Your task to perform on an android device: Toggle the flashlight Image 0: 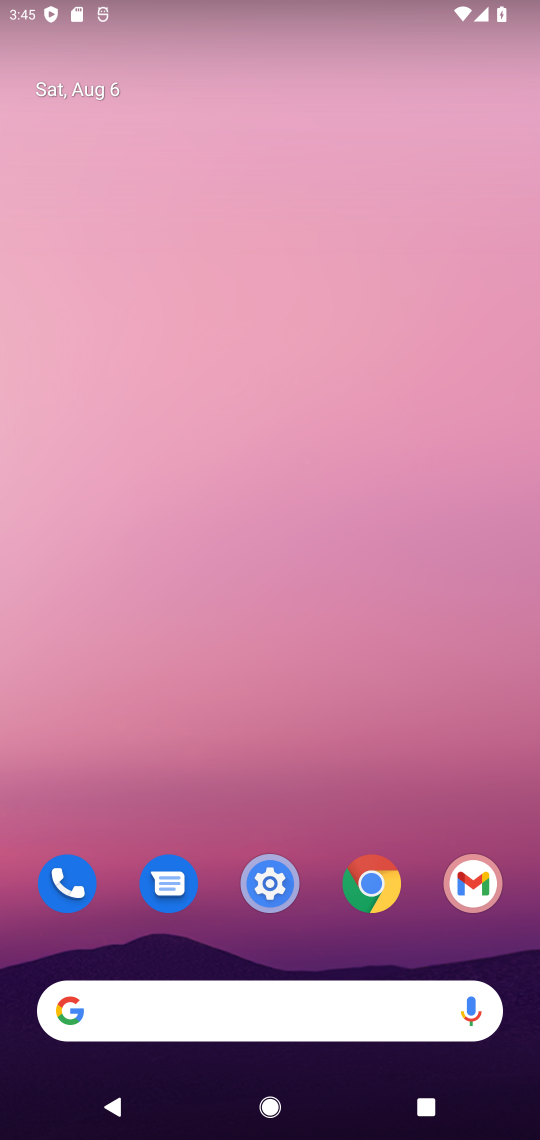
Step 0: drag from (216, 974) to (303, 40)
Your task to perform on an android device: Toggle the flashlight Image 1: 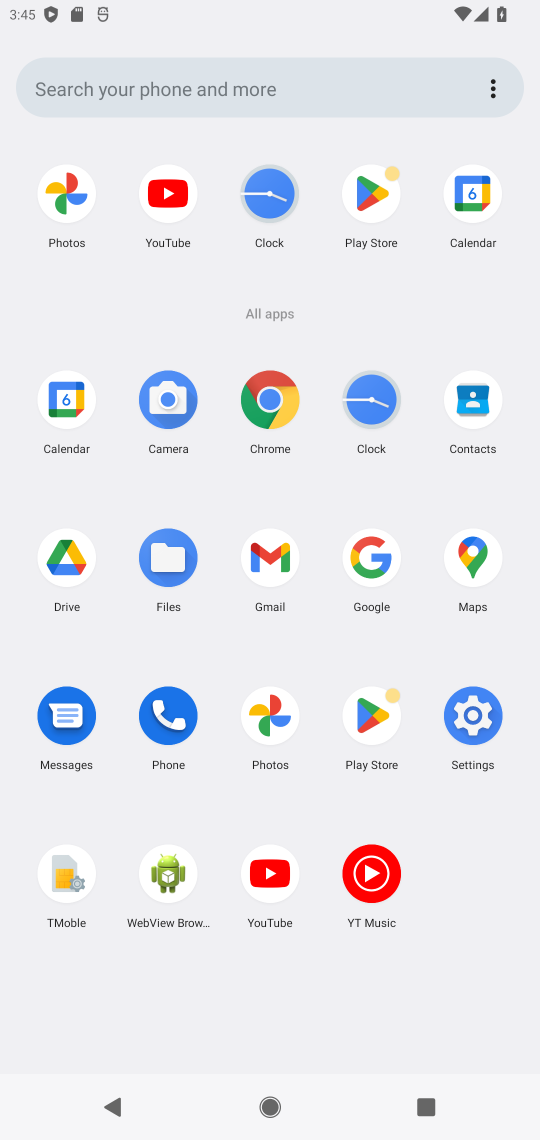
Step 1: drag from (389, 323) to (383, 685)
Your task to perform on an android device: Toggle the flashlight Image 2: 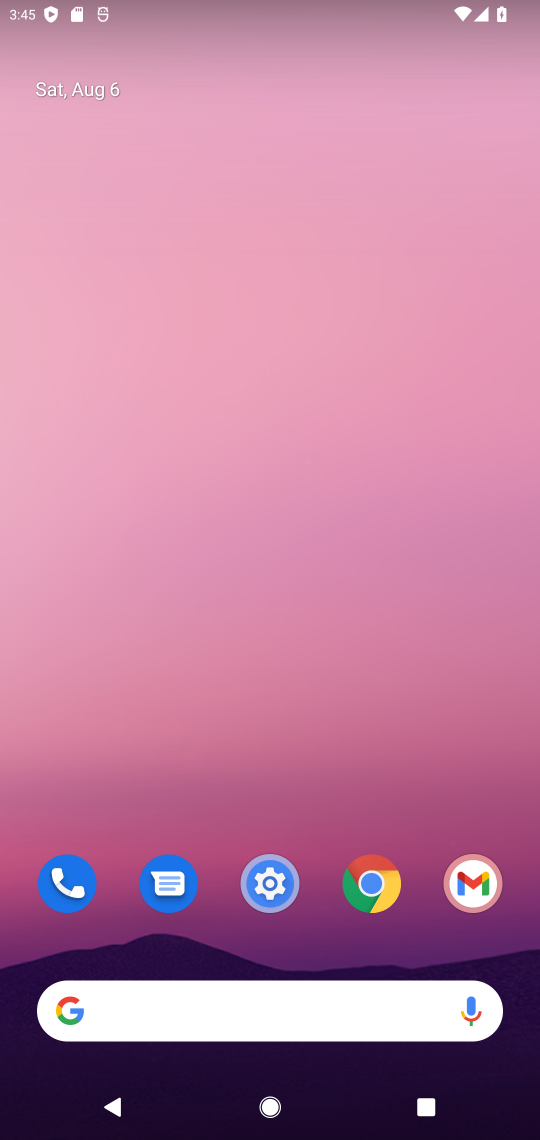
Step 2: drag from (354, 12) to (306, 734)
Your task to perform on an android device: Toggle the flashlight Image 3: 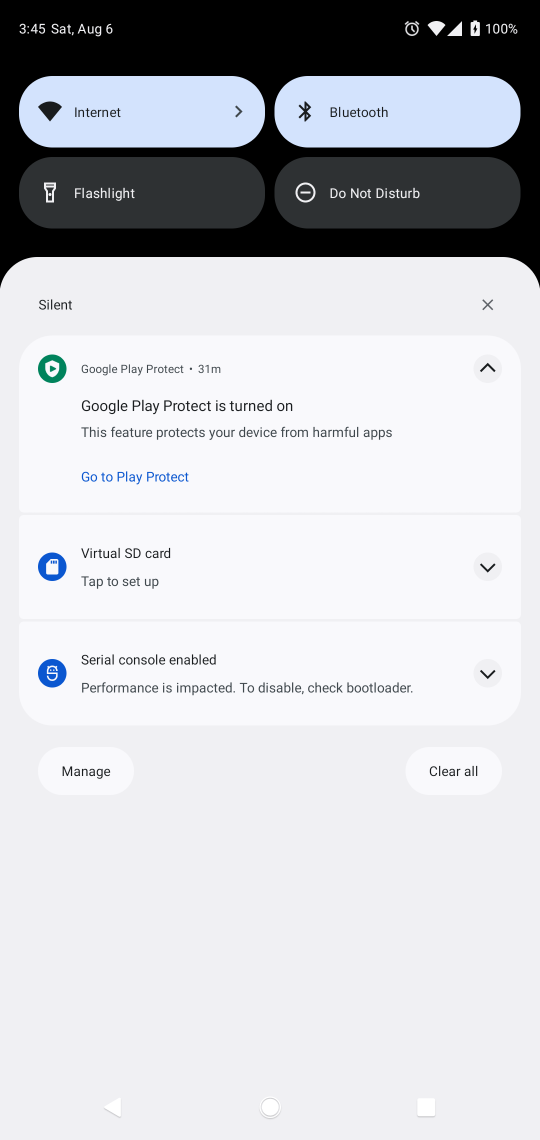
Step 3: drag from (259, 220) to (535, 340)
Your task to perform on an android device: Toggle the flashlight Image 4: 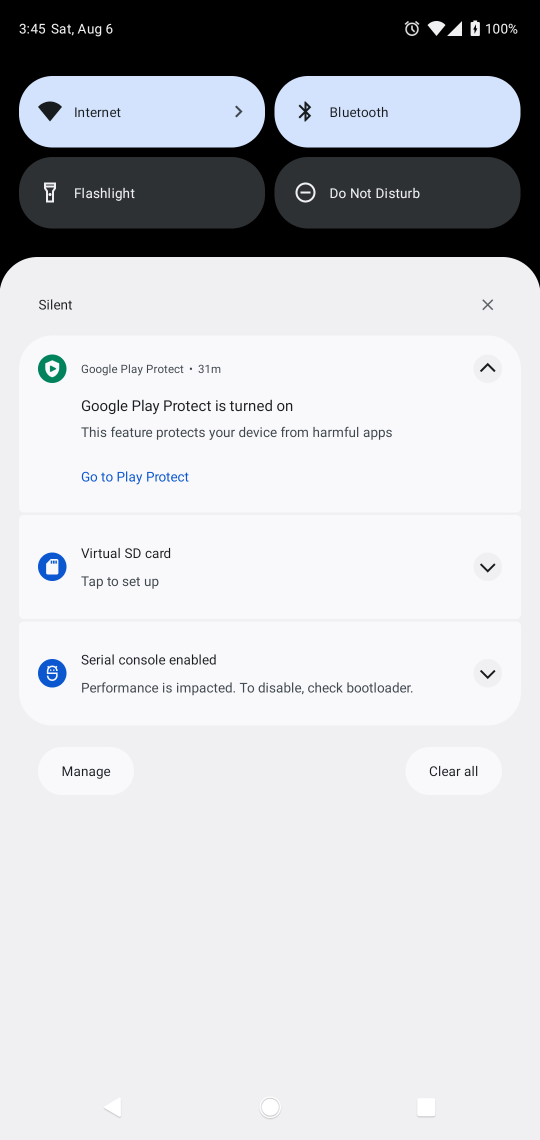
Step 4: drag from (268, 229) to (186, 1055)
Your task to perform on an android device: Toggle the flashlight Image 5: 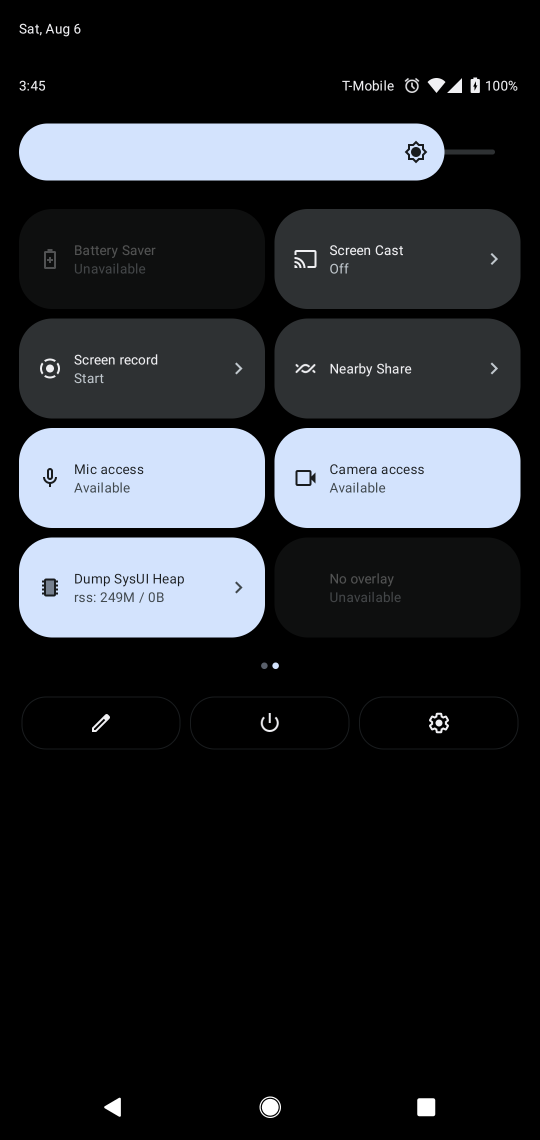
Step 5: drag from (144, 488) to (539, 323)
Your task to perform on an android device: Toggle the flashlight Image 6: 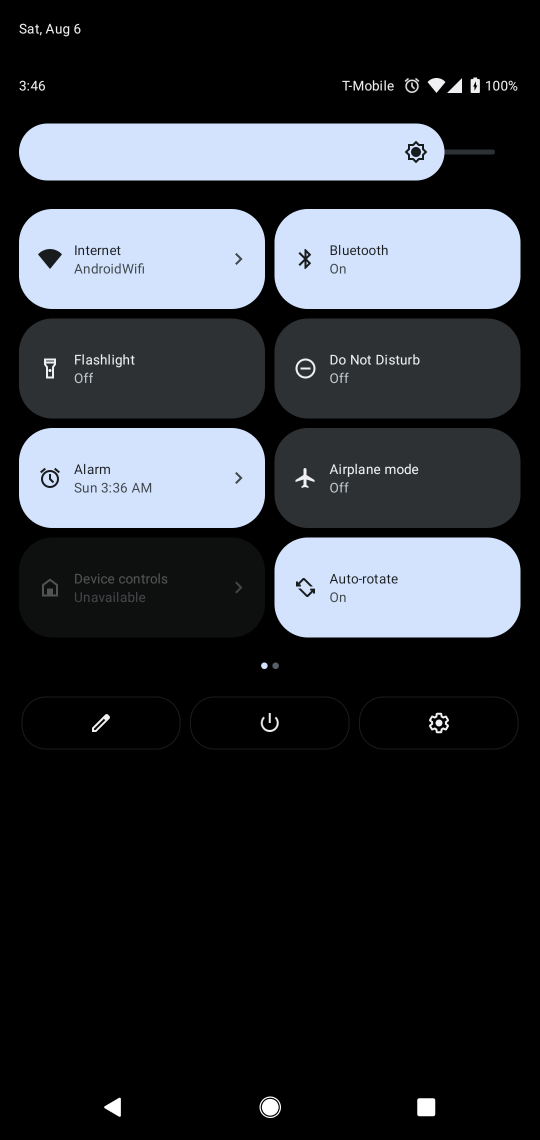
Step 6: click (150, 356)
Your task to perform on an android device: Toggle the flashlight Image 7: 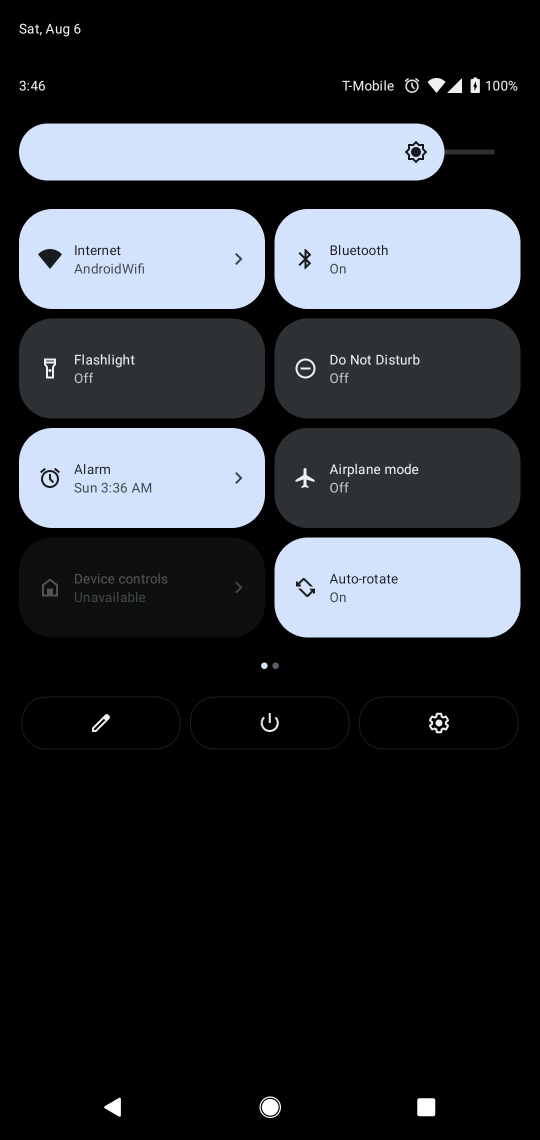
Step 7: click (171, 378)
Your task to perform on an android device: Toggle the flashlight Image 8: 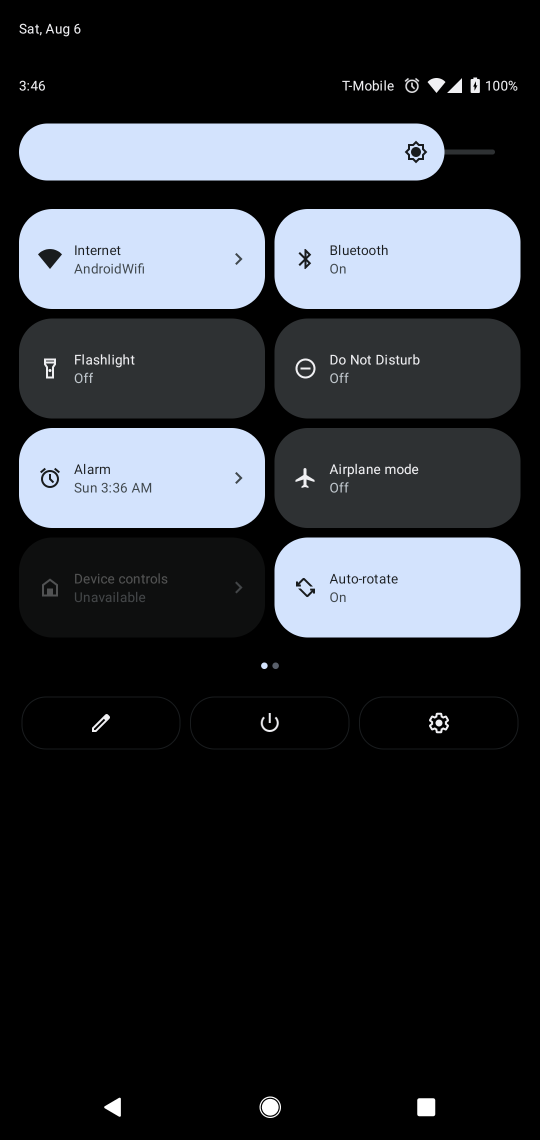
Step 8: click (142, 392)
Your task to perform on an android device: Toggle the flashlight Image 9: 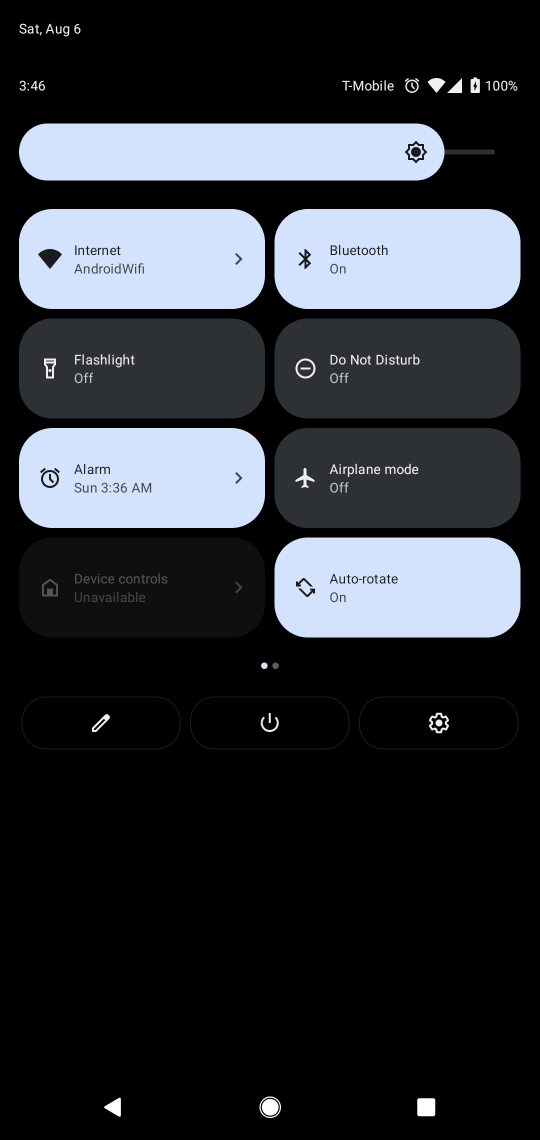
Step 9: task complete